Your task to perform on an android device: Go to eBay Image 0: 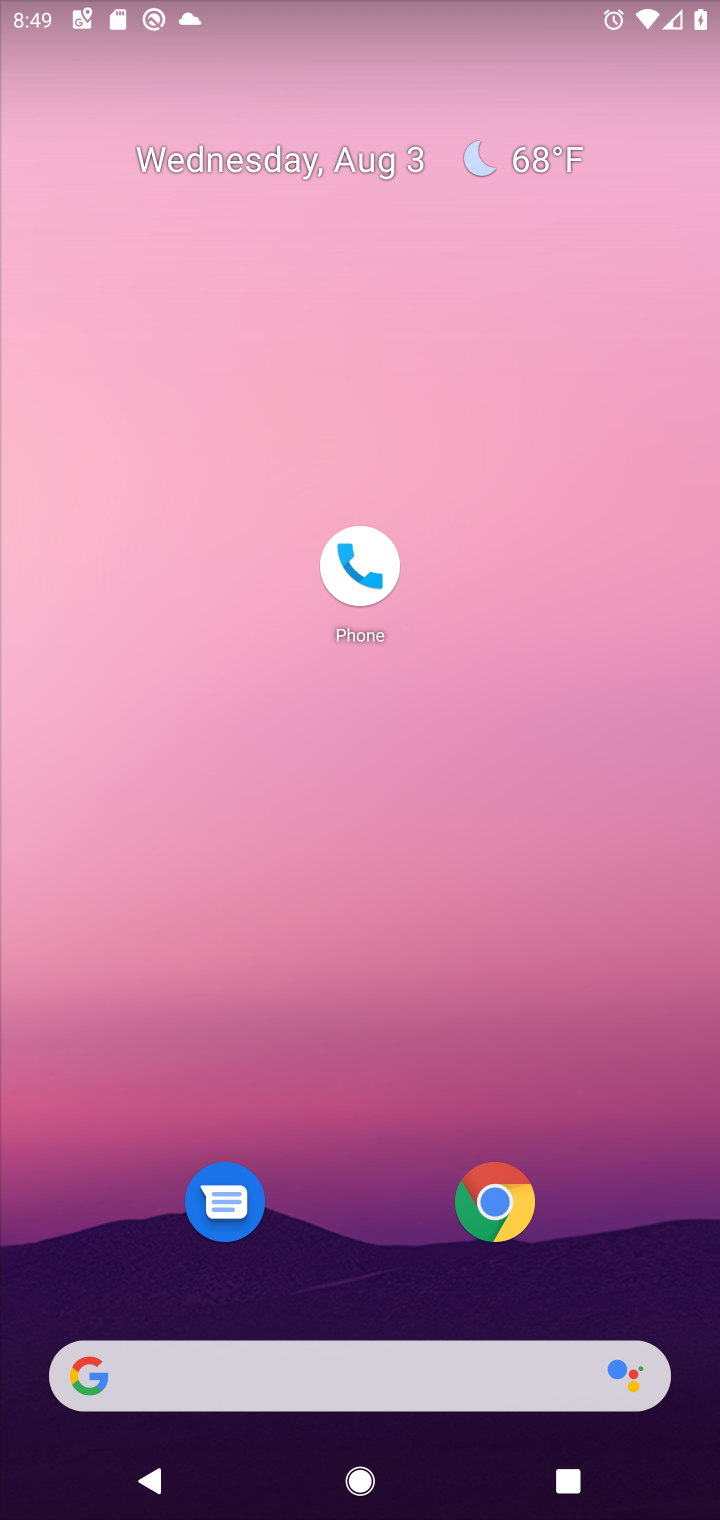
Step 0: click (493, 1199)
Your task to perform on an android device: Go to eBay Image 1: 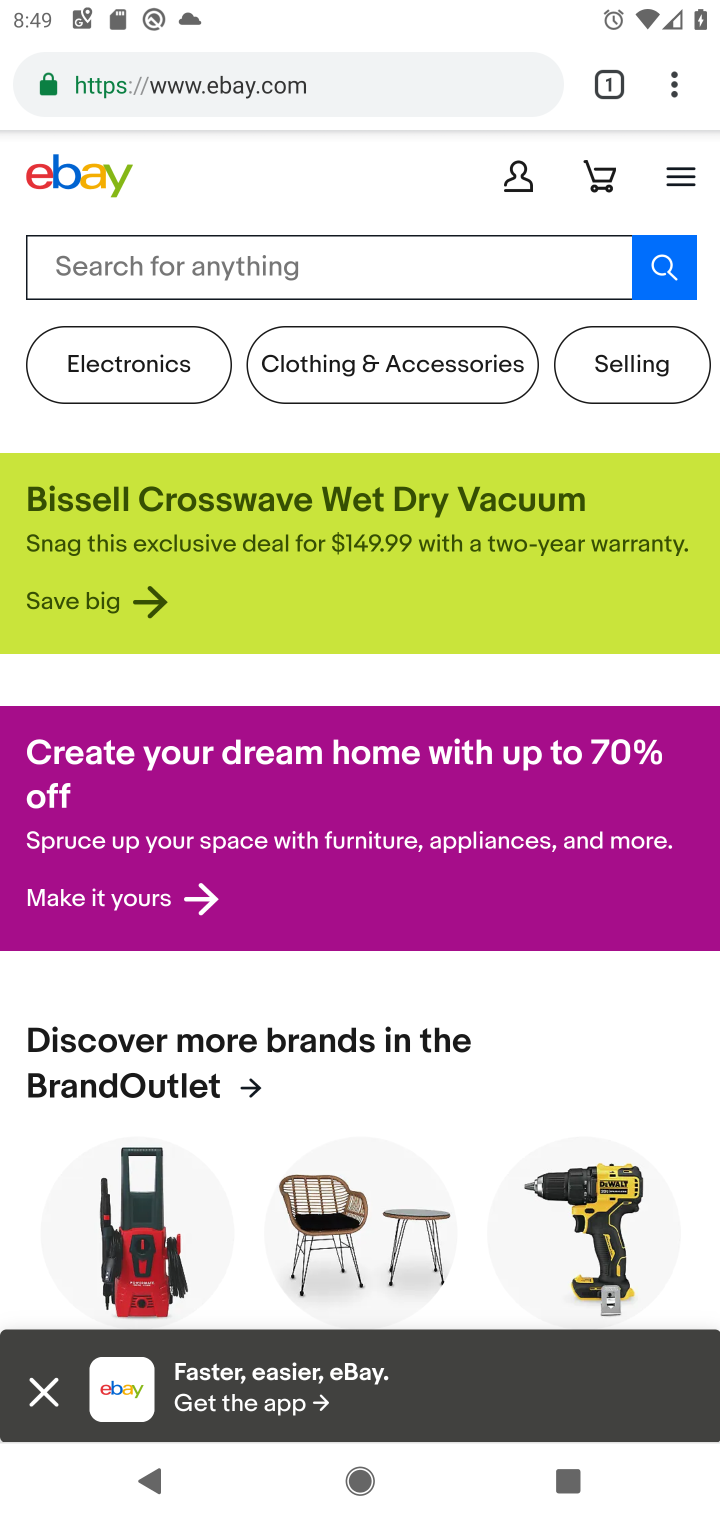
Step 1: task complete